Your task to perform on an android device: Search for razer kraken on ebay, select the first entry, add it to the cart, then select checkout. Image 0: 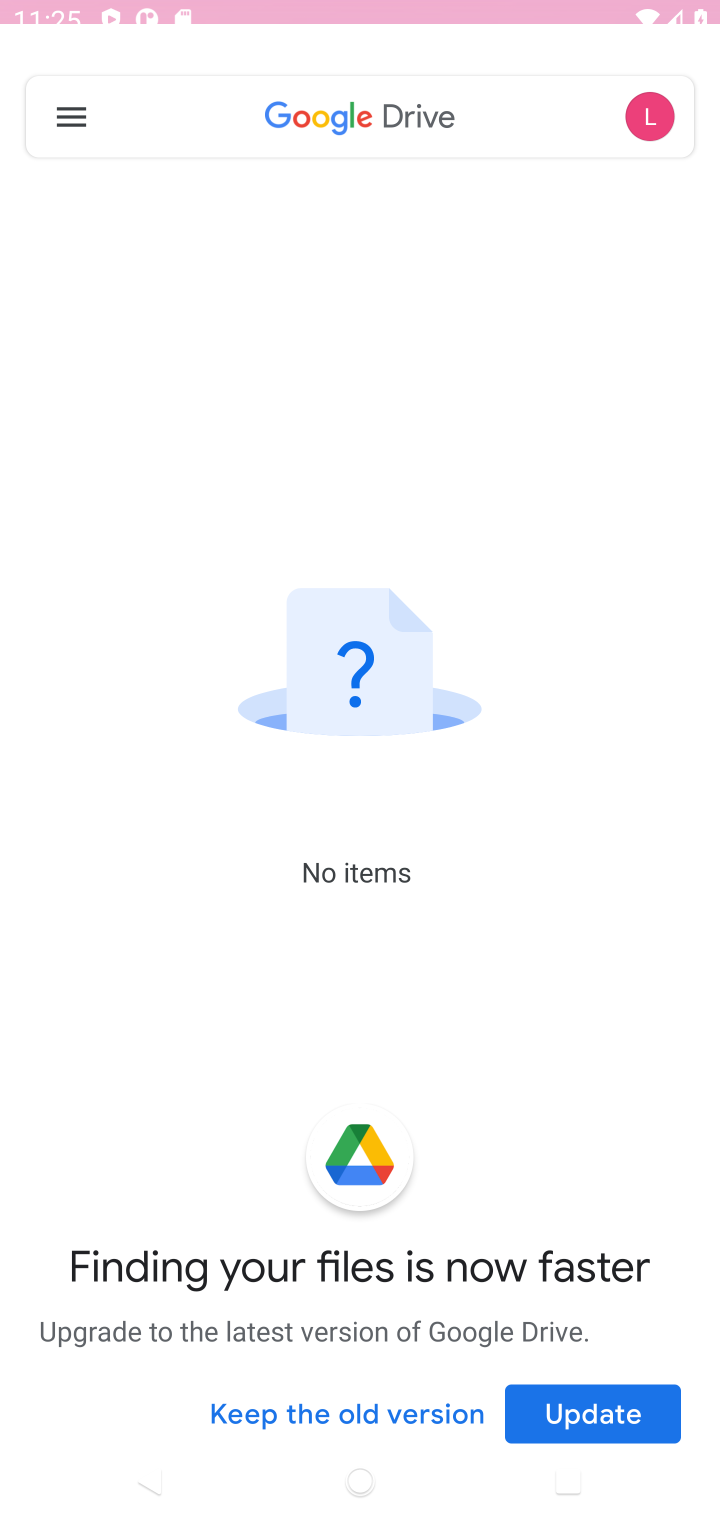
Step 0: press home button
Your task to perform on an android device: Search for razer kraken on ebay, select the first entry, add it to the cart, then select checkout. Image 1: 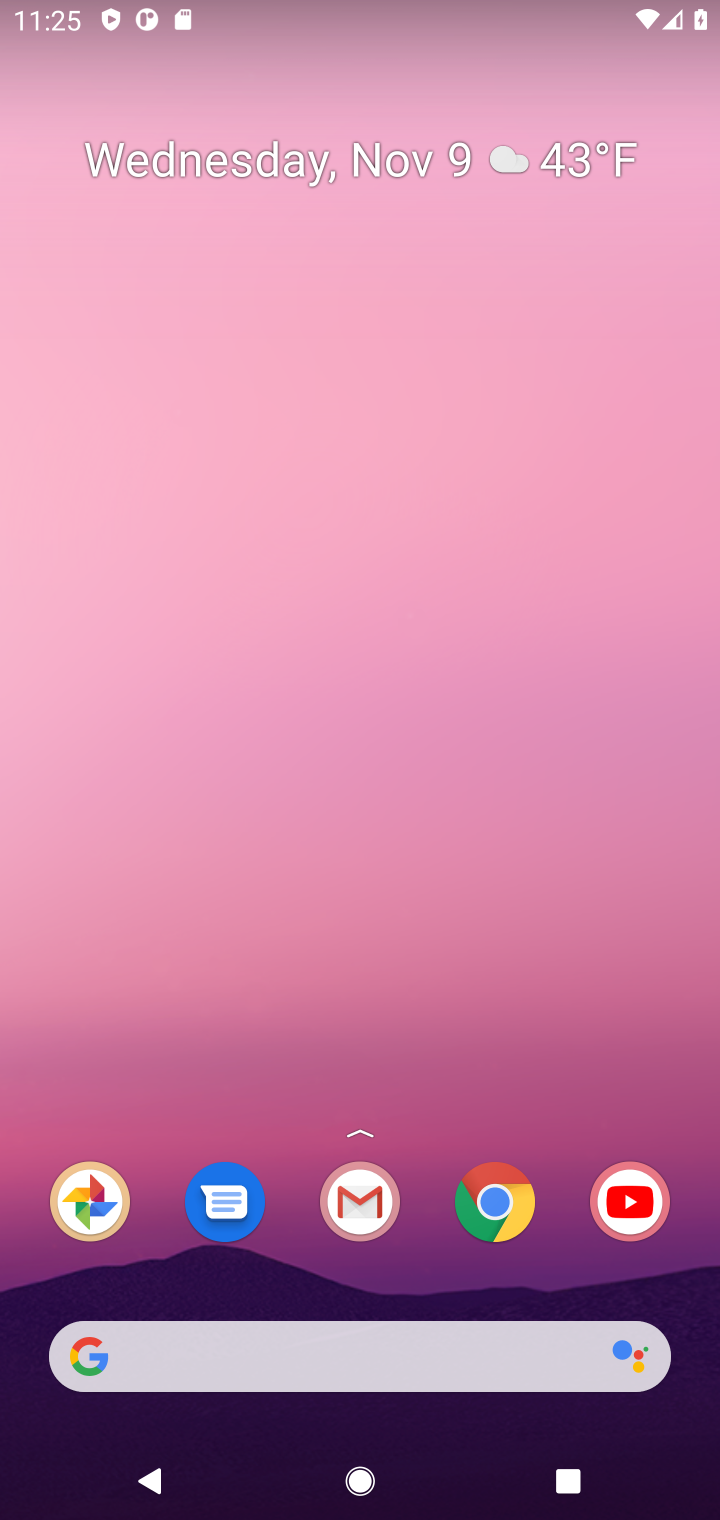
Step 1: click (486, 1195)
Your task to perform on an android device: Search for razer kraken on ebay, select the first entry, add it to the cart, then select checkout. Image 2: 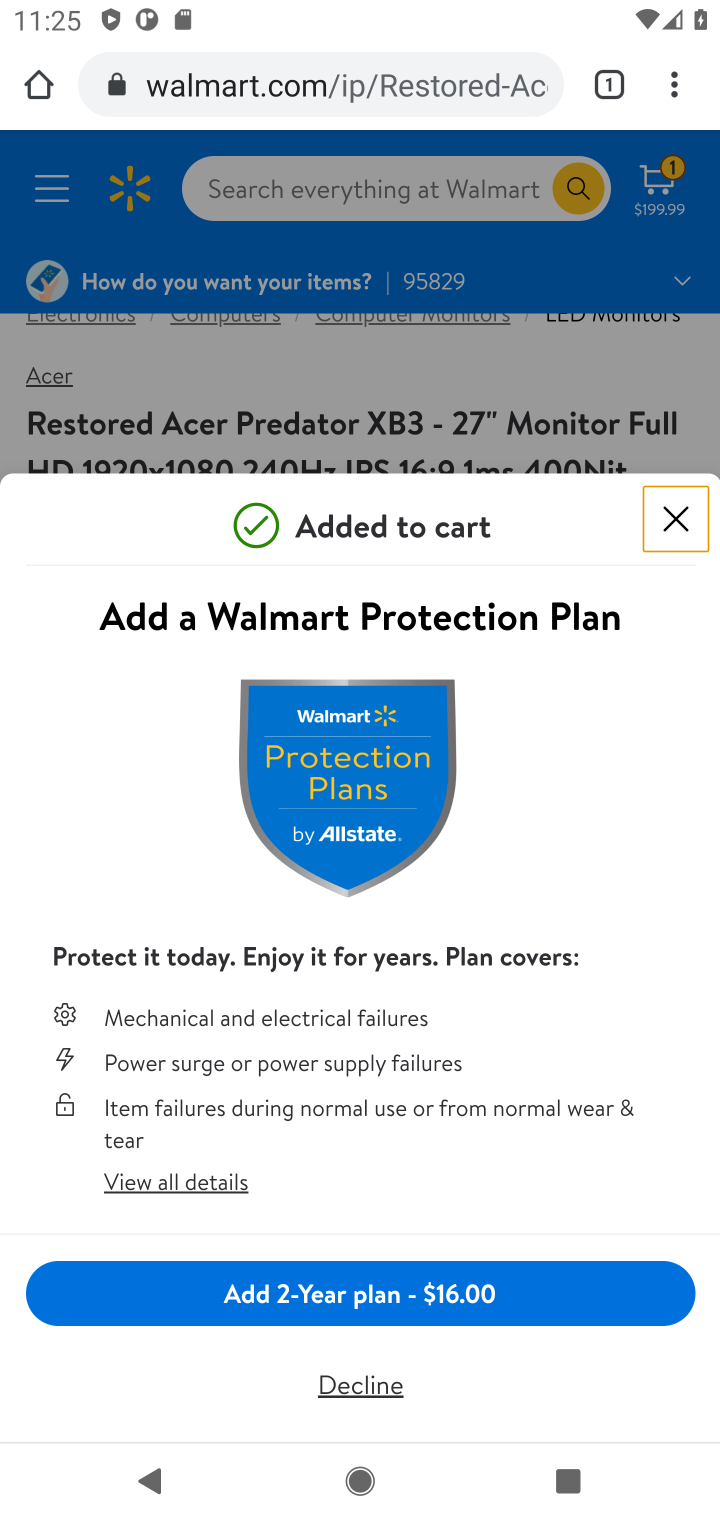
Step 2: click (402, 90)
Your task to perform on an android device: Search for razer kraken on ebay, select the first entry, add it to the cart, then select checkout. Image 3: 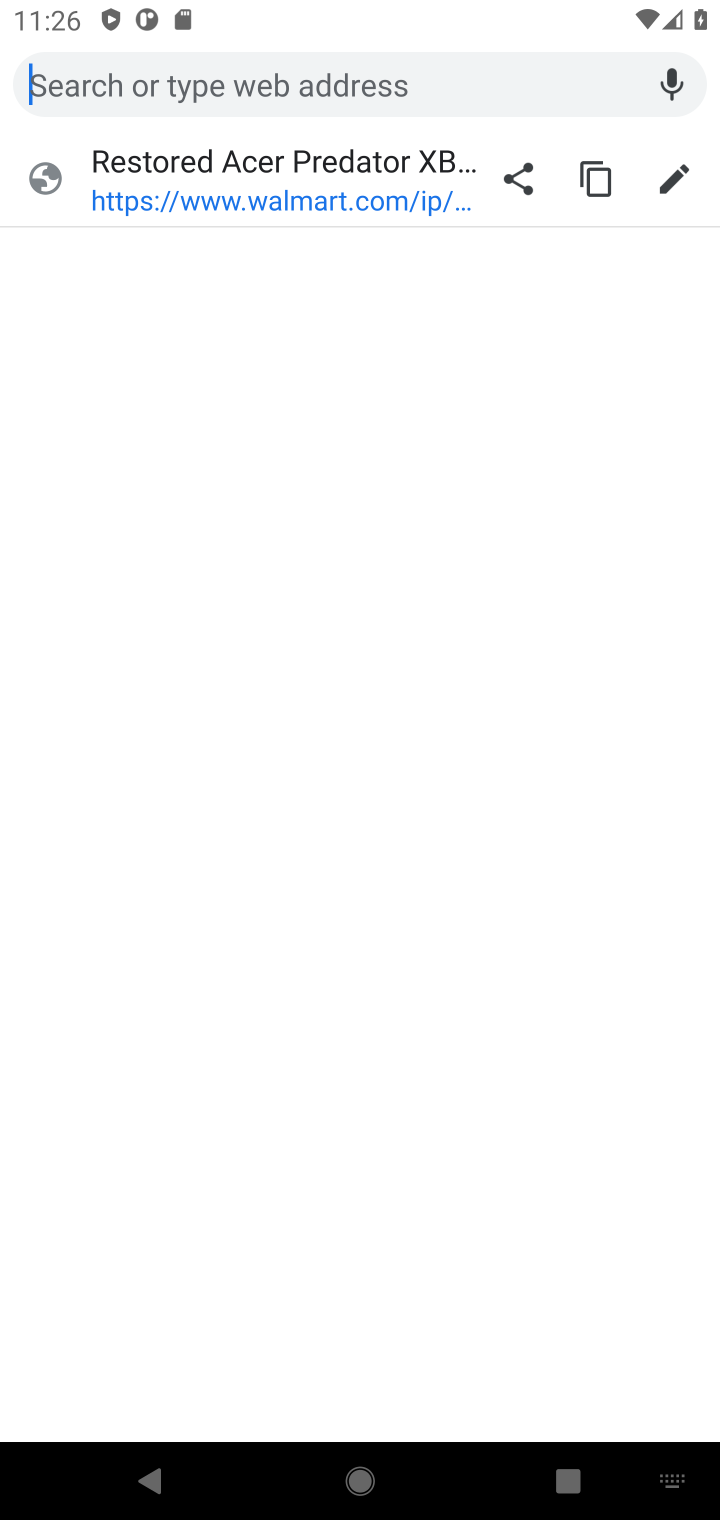
Step 3: type "ebay"
Your task to perform on an android device: Search for razer kraken on ebay, select the first entry, add it to the cart, then select checkout. Image 4: 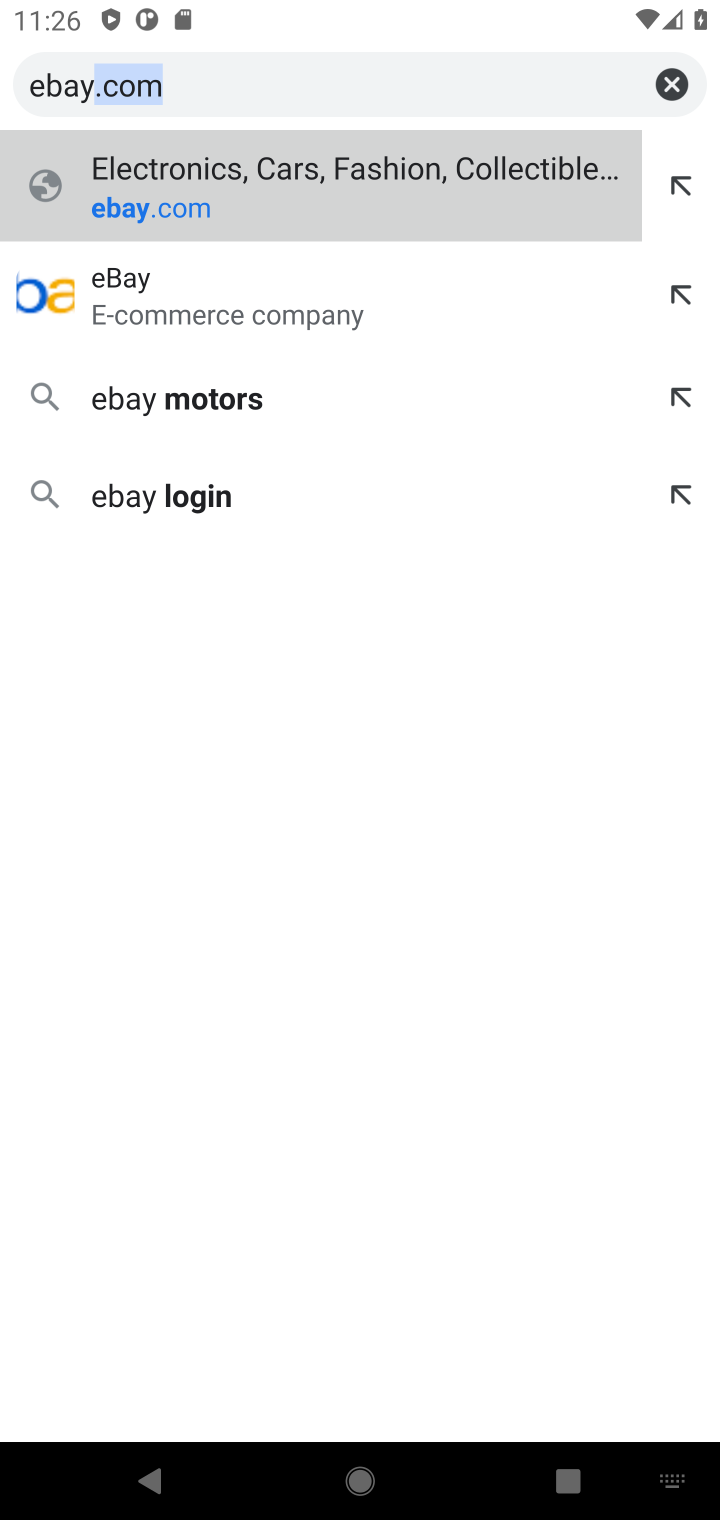
Step 4: click (428, 70)
Your task to perform on an android device: Search for razer kraken on ebay, select the first entry, add it to the cart, then select checkout. Image 5: 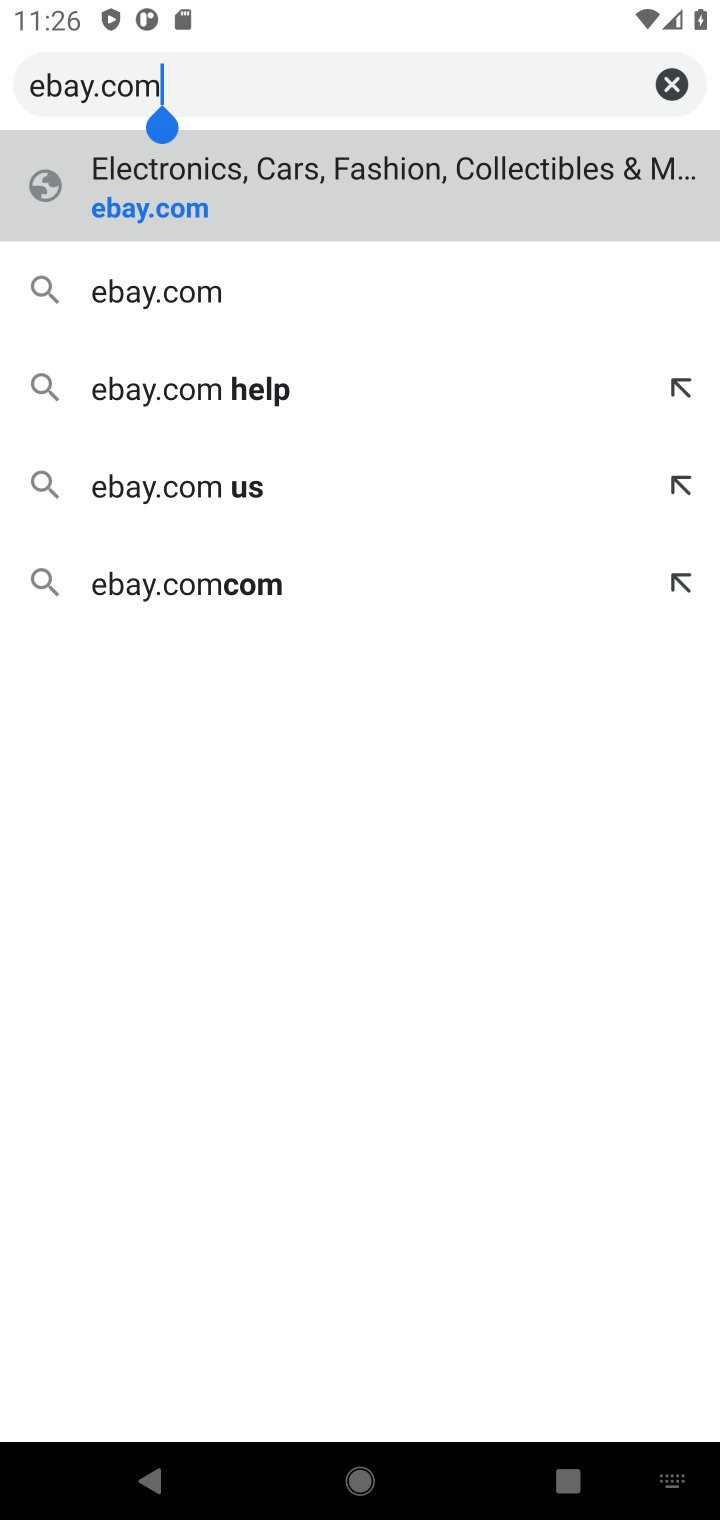
Step 5: click (186, 284)
Your task to perform on an android device: Search for razer kraken on ebay, select the first entry, add it to the cart, then select checkout. Image 6: 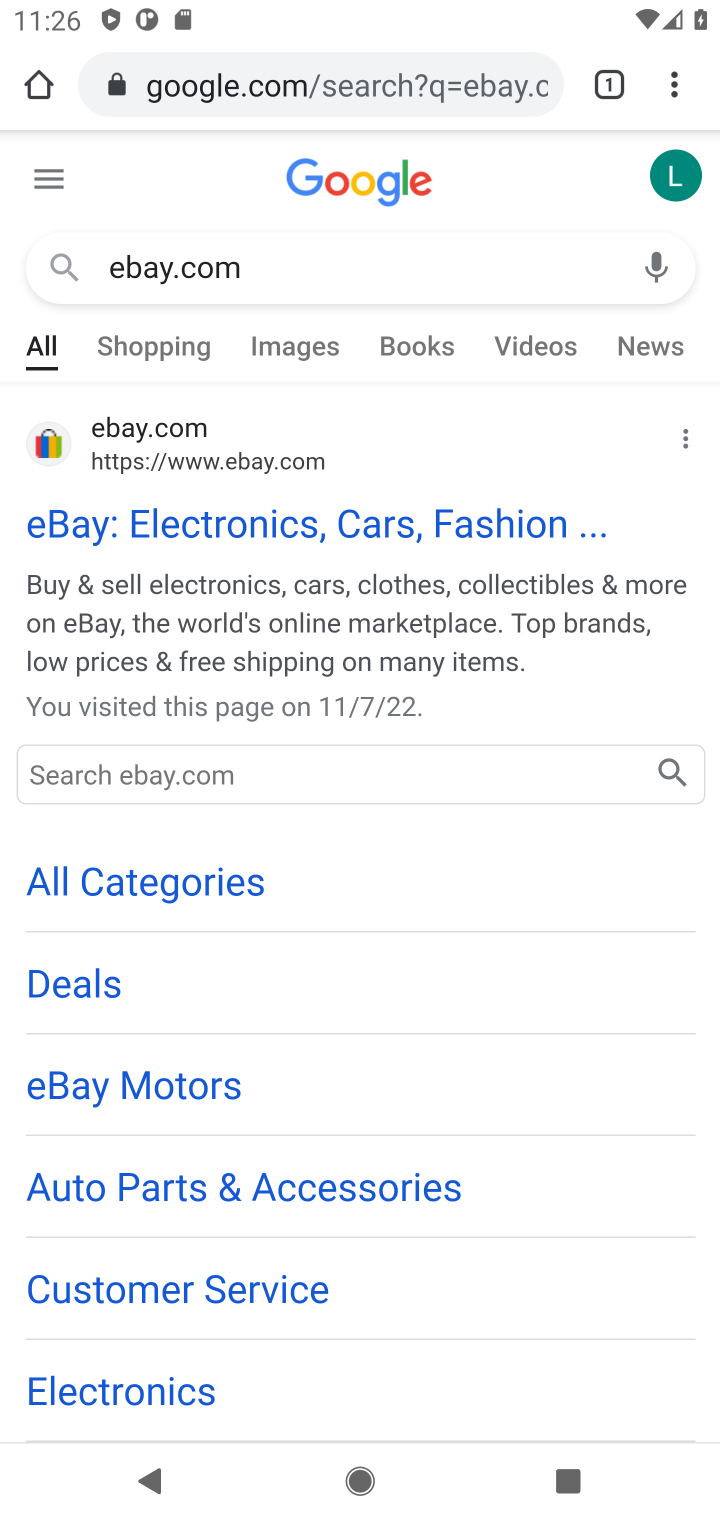
Step 6: click (181, 421)
Your task to perform on an android device: Search for razer kraken on ebay, select the first entry, add it to the cart, then select checkout. Image 7: 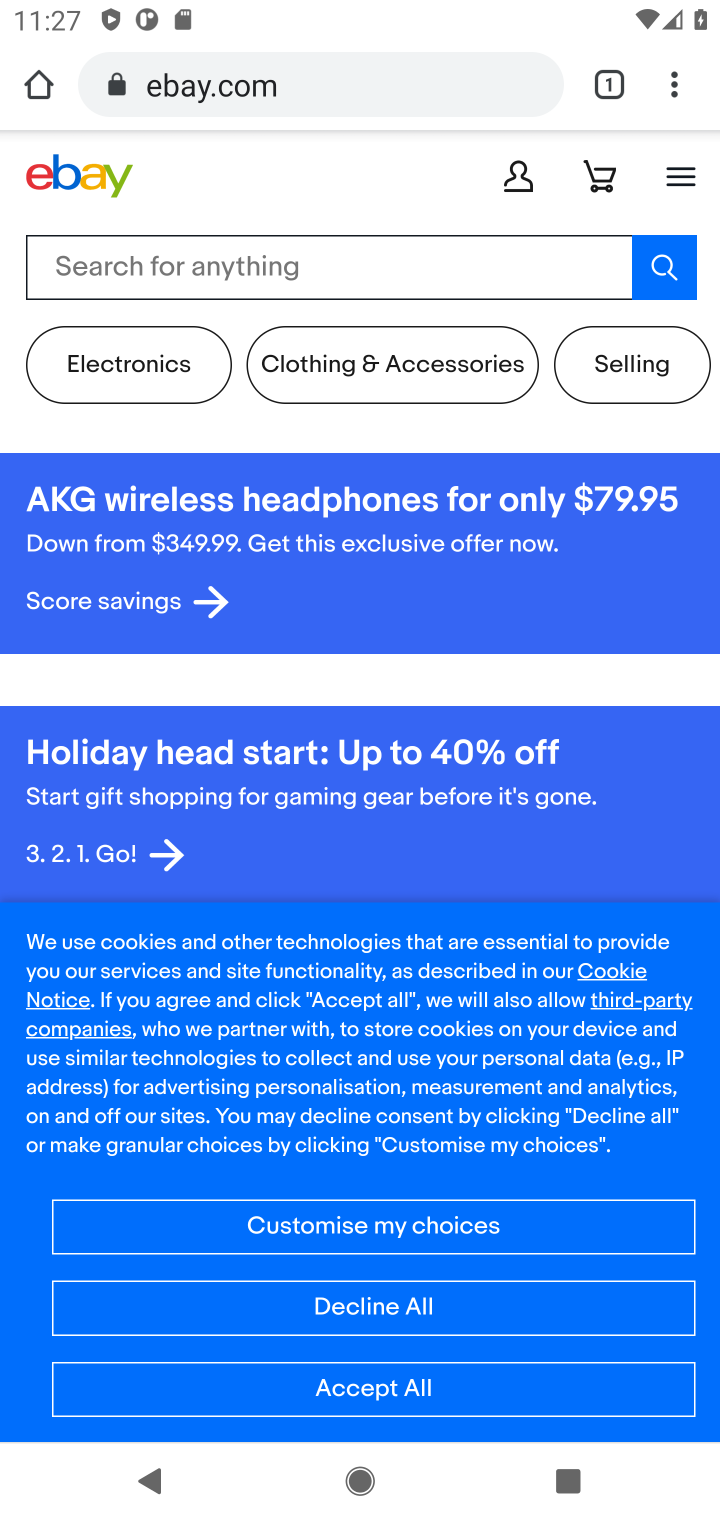
Step 7: click (356, 258)
Your task to perform on an android device: Search for razer kraken on ebay, select the first entry, add it to the cart, then select checkout. Image 8: 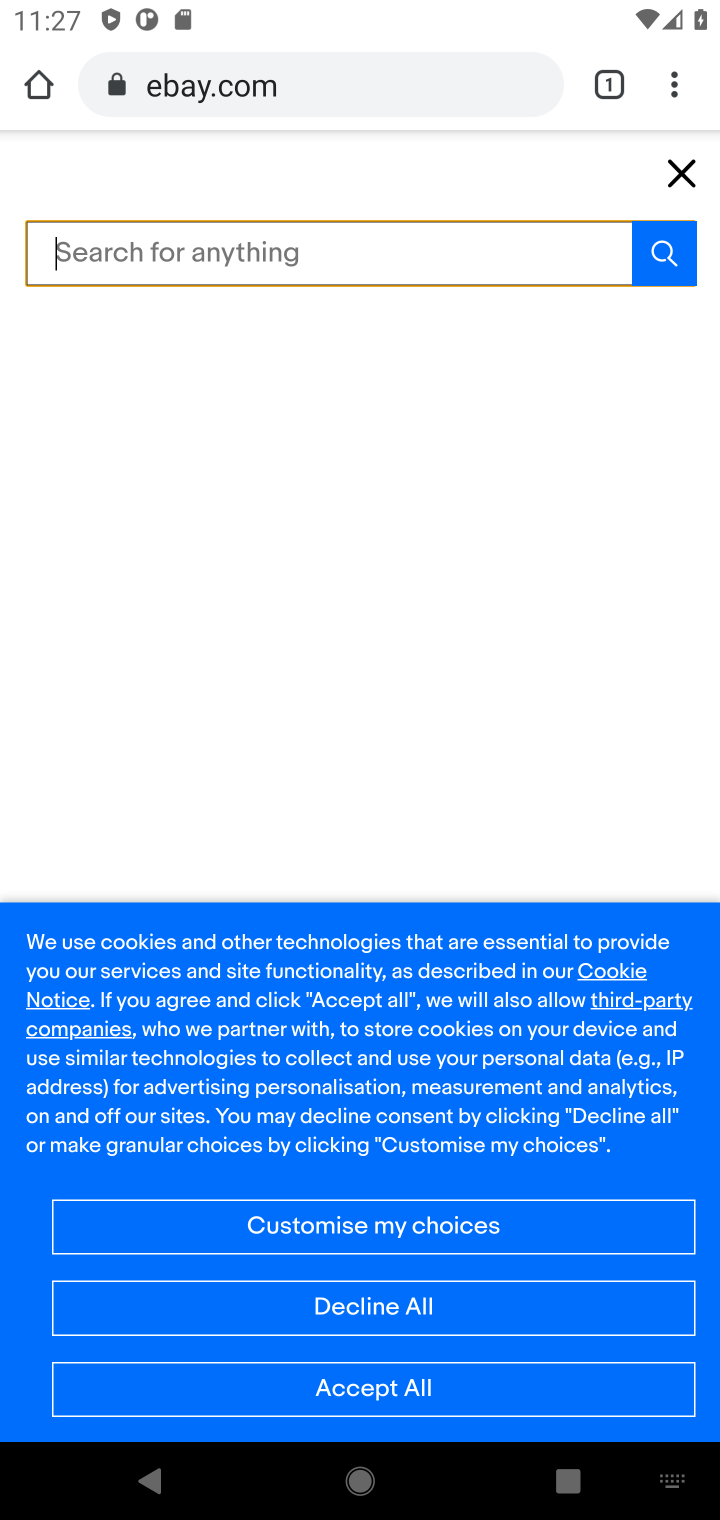
Step 8: type " razer kraken"
Your task to perform on an android device: Search for razer kraken on ebay, select the first entry, add it to the cart, then select checkout. Image 9: 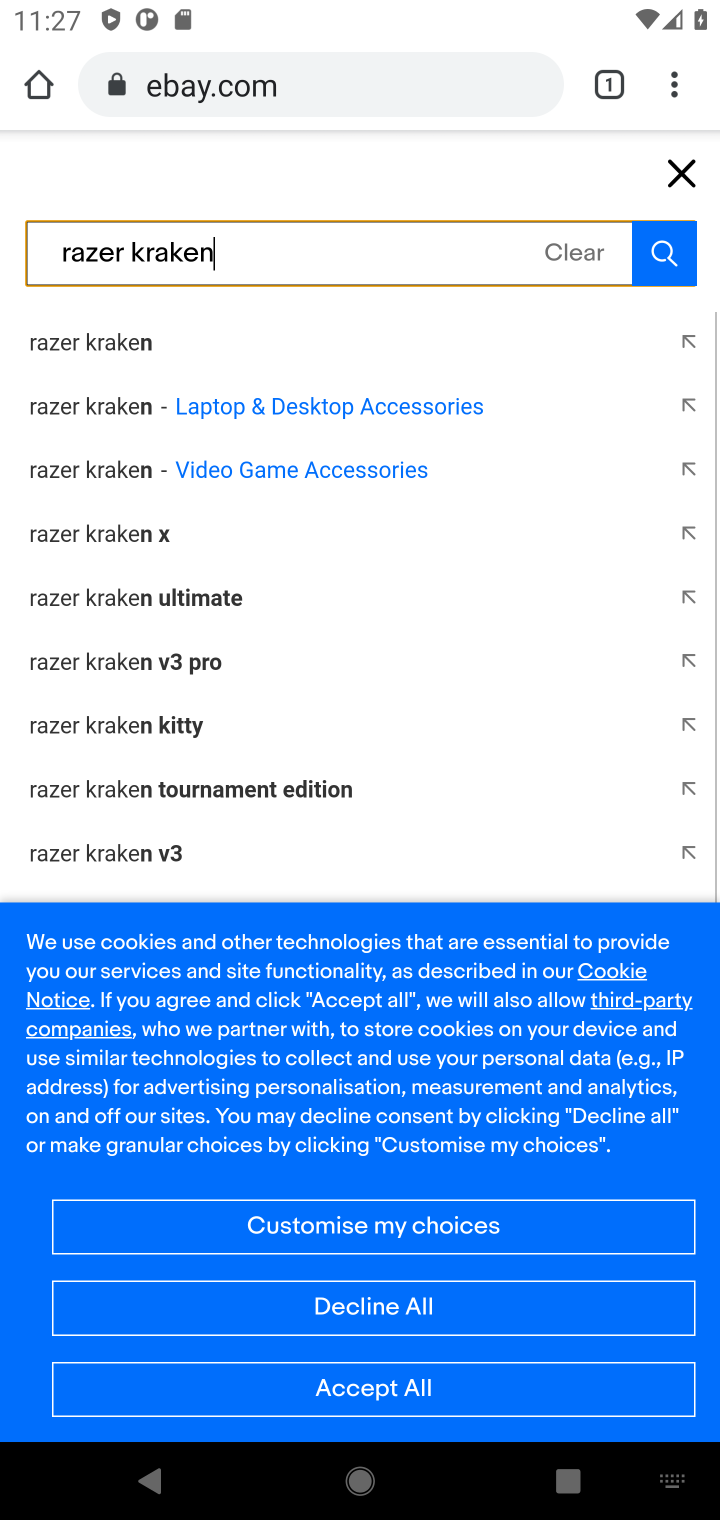
Step 9: press enter
Your task to perform on an android device: Search for razer kraken on ebay, select the first entry, add it to the cart, then select checkout. Image 10: 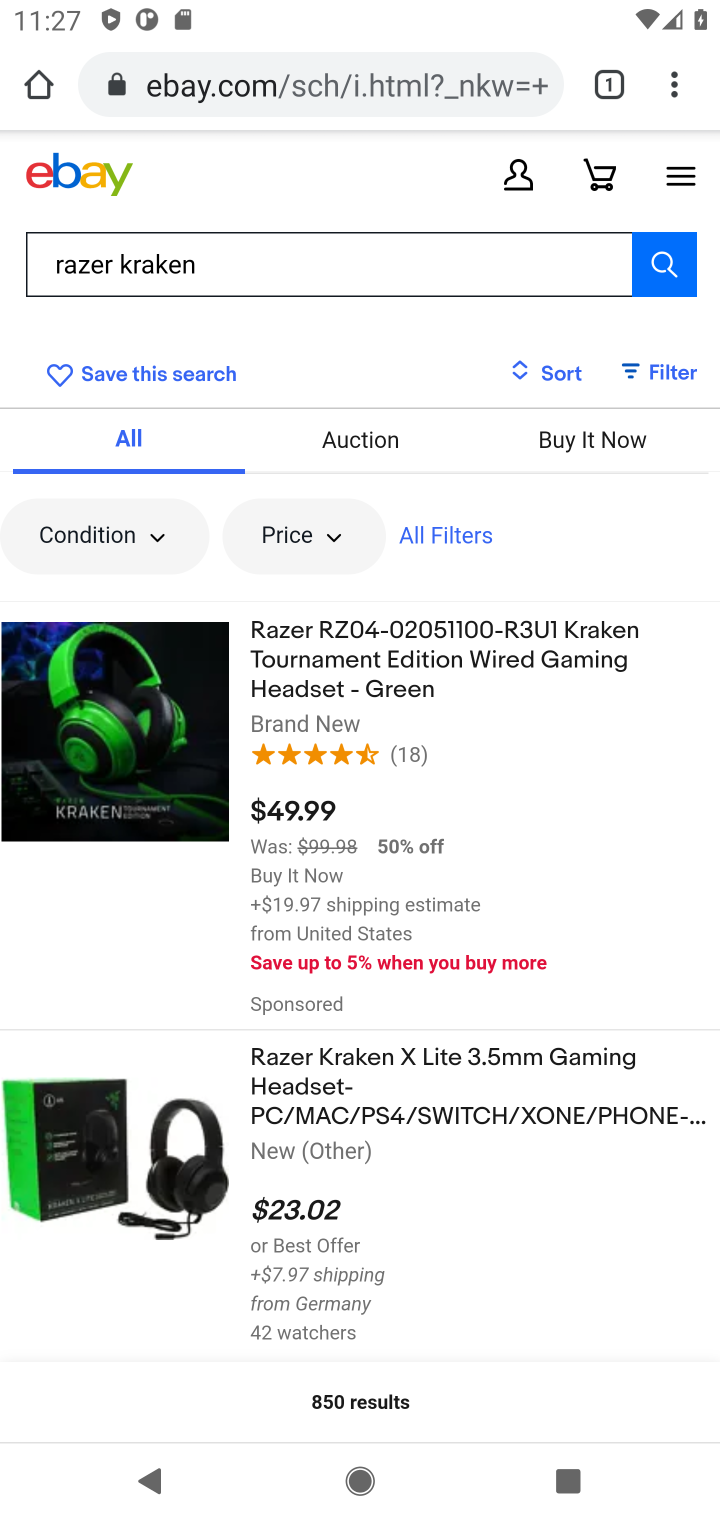
Step 10: drag from (609, 859) to (587, 522)
Your task to perform on an android device: Search for razer kraken on ebay, select the first entry, add it to the cart, then select checkout. Image 11: 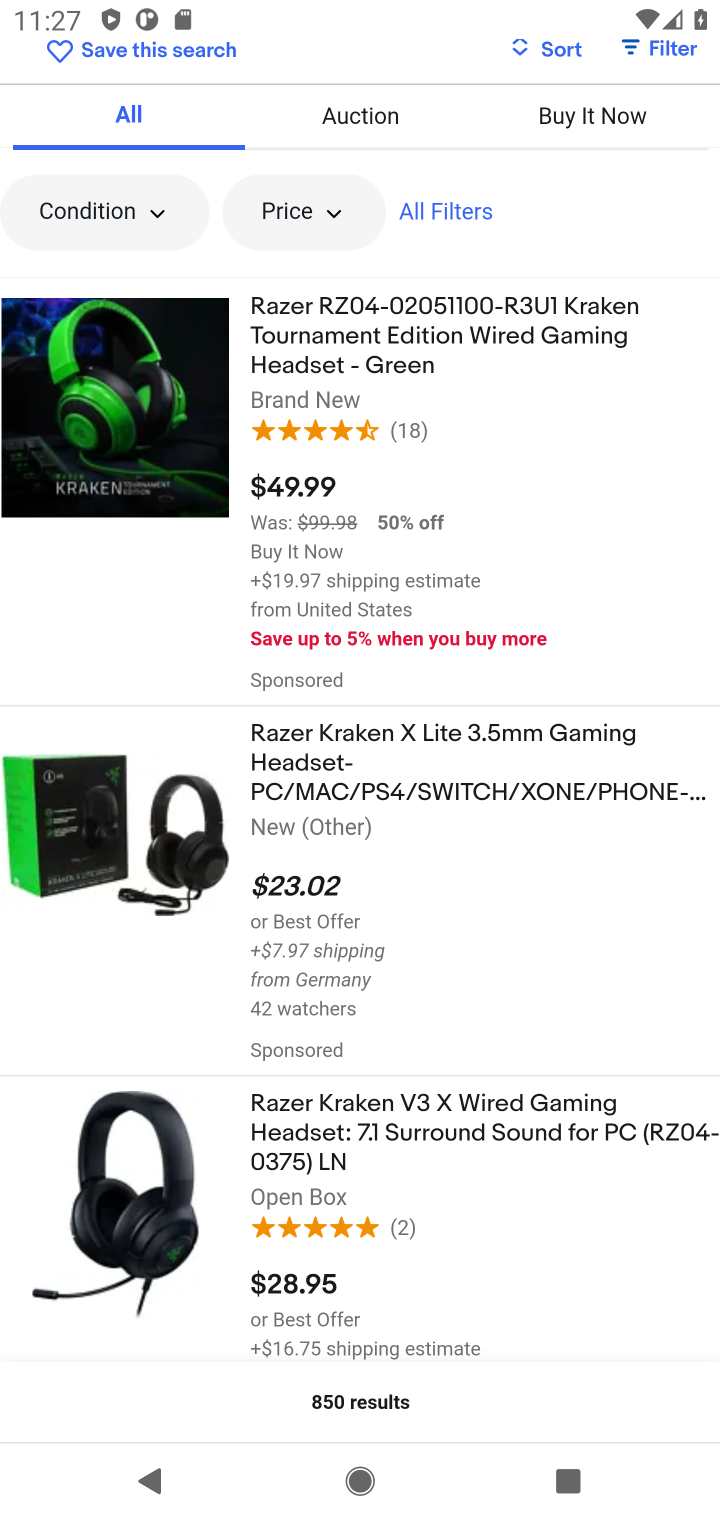
Step 11: click (125, 838)
Your task to perform on an android device: Search for razer kraken on ebay, select the first entry, add it to the cart, then select checkout. Image 12: 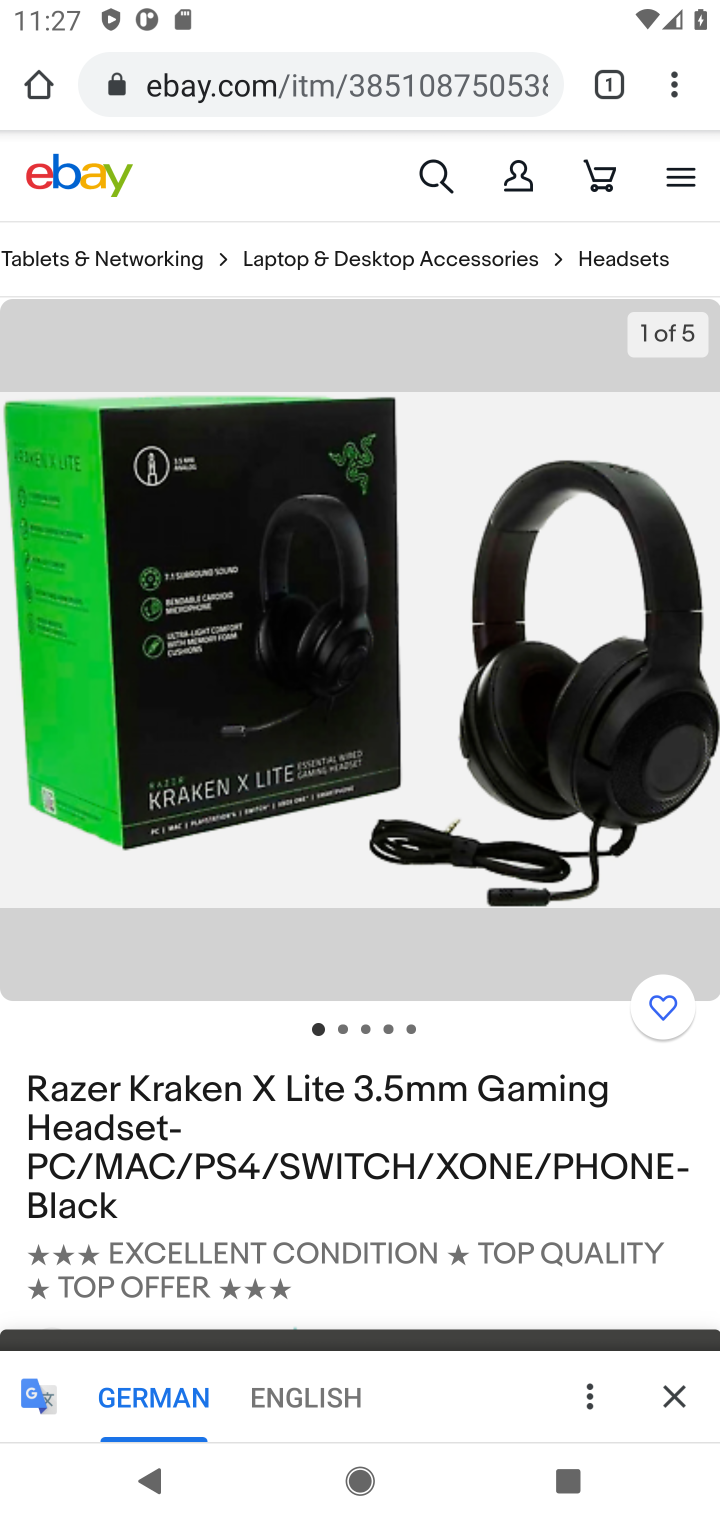
Step 12: drag from (495, 1155) to (496, 403)
Your task to perform on an android device: Search for razer kraken on ebay, select the first entry, add it to the cart, then select checkout. Image 13: 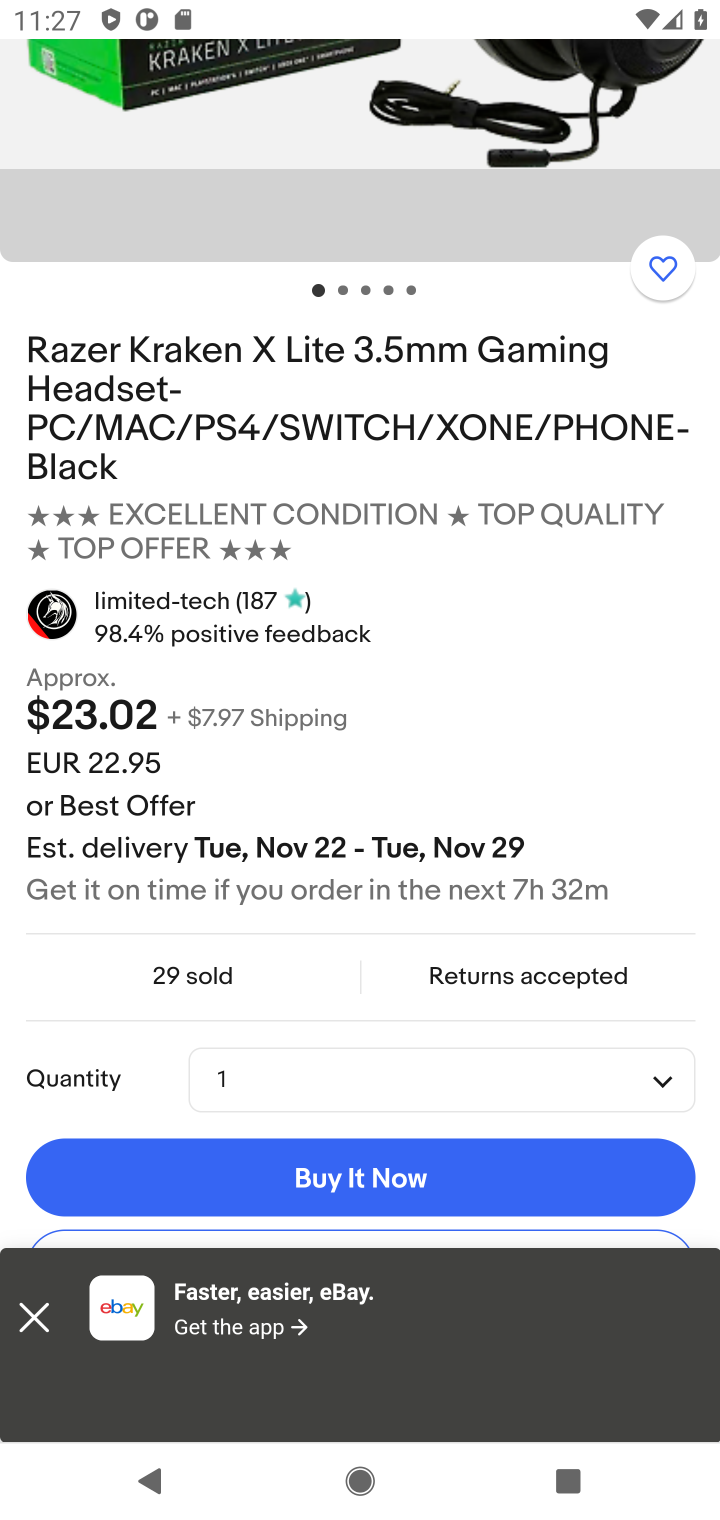
Step 13: drag from (507, 1021) to (543, 505)
Your task to perform on an android device: Search for razer kraken on ebay, select the first entry, add it to the cart, then select checkout. Image 14: 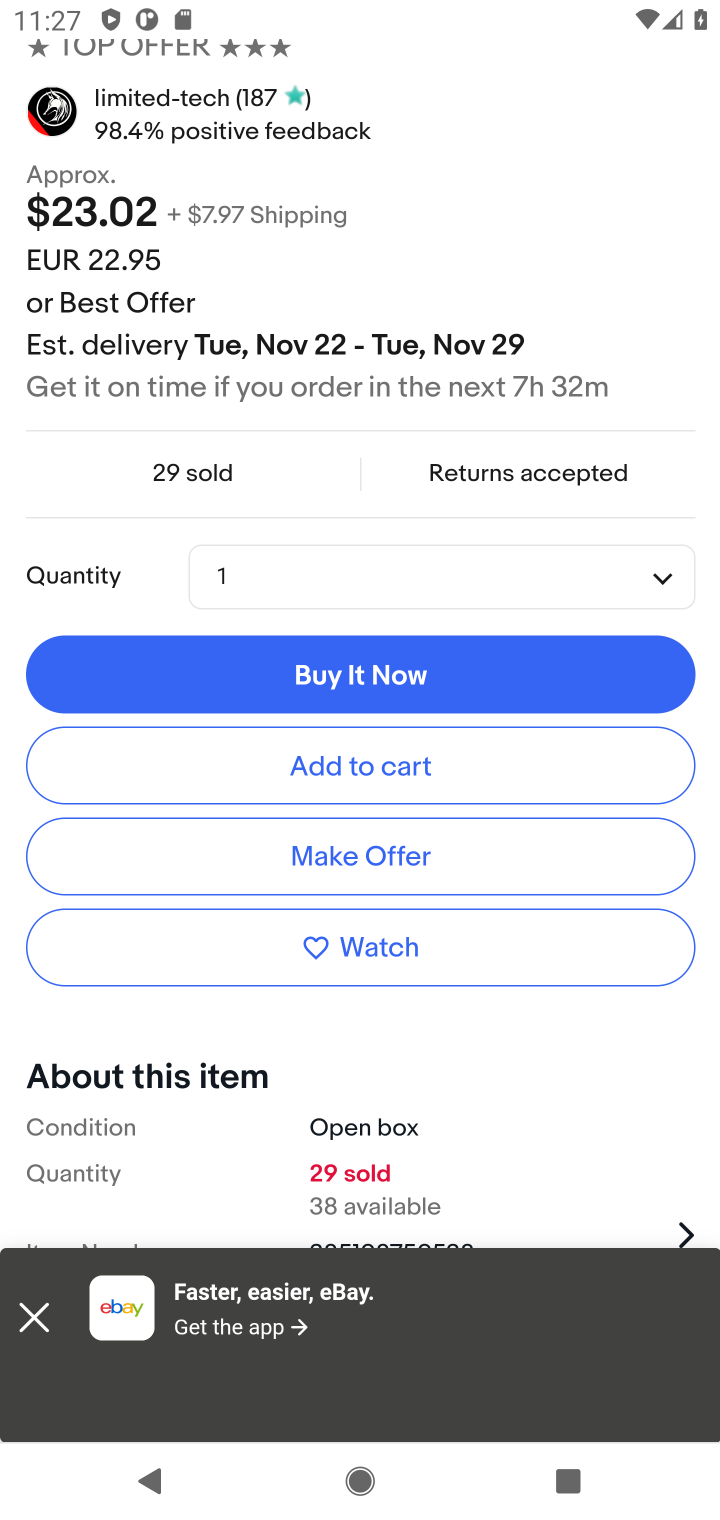
Step 14: click (400, 782)
Your task to perform on an android device: Search for razer kraken on ebay, select the first entry, add it to the cart, then select checkout. Image 15: 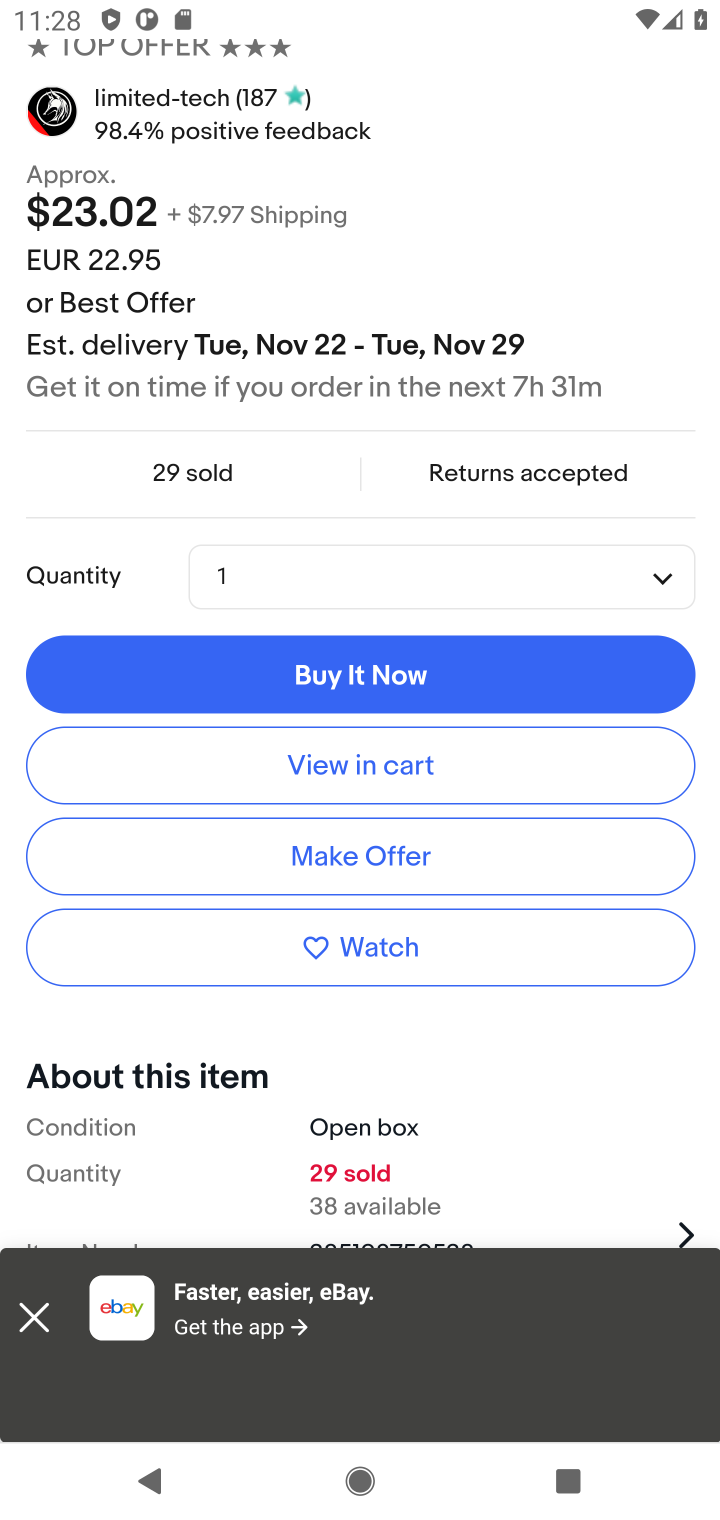
Step 15: click (400, 782)
Your task to perform on an android device: Search for razer kraken on ebay, select the first entry, add it to the cart, then select checkout. Image 16: 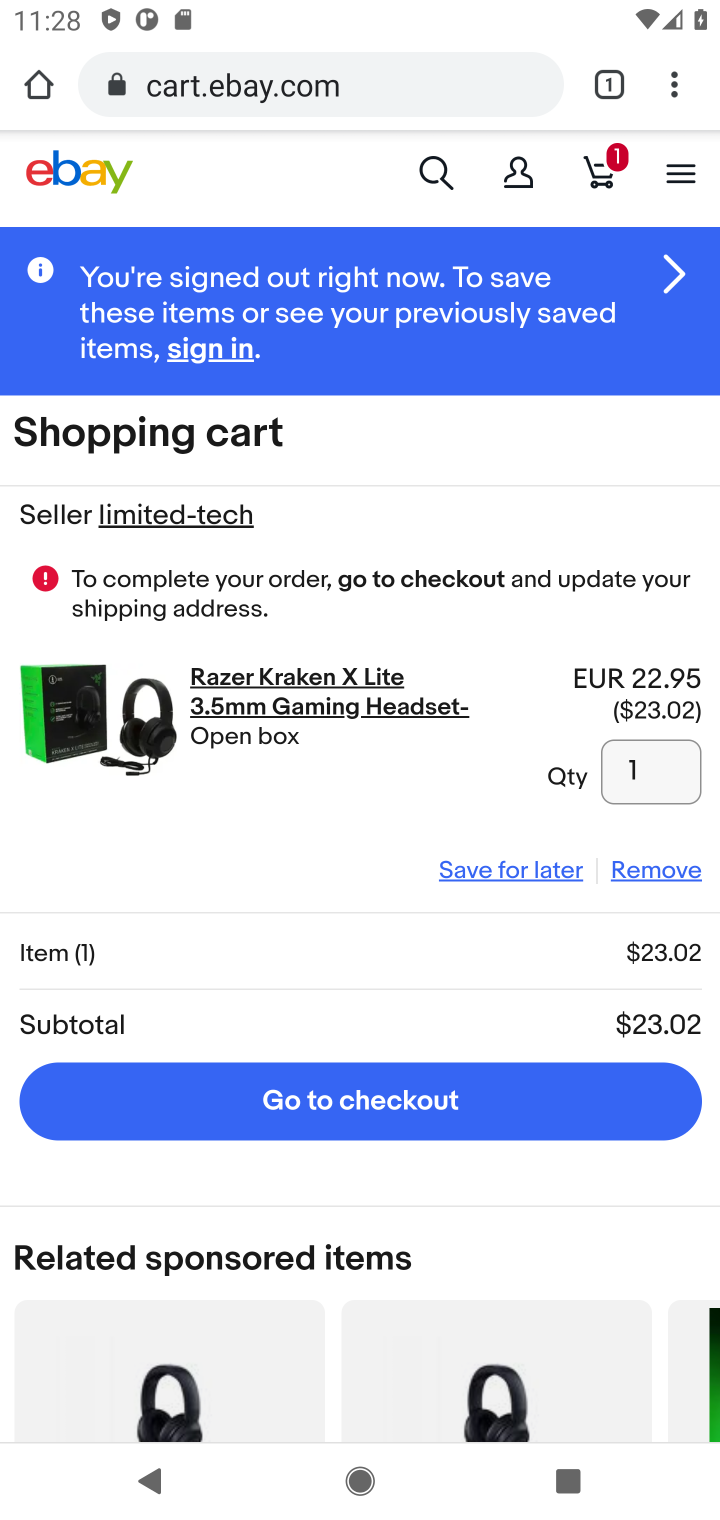
Step 16: click (407, 1048)
Your task to perform on an android device: Search for razer kraken on ebay, select the first entry, add it to the cart, then select checkout. Image 17: 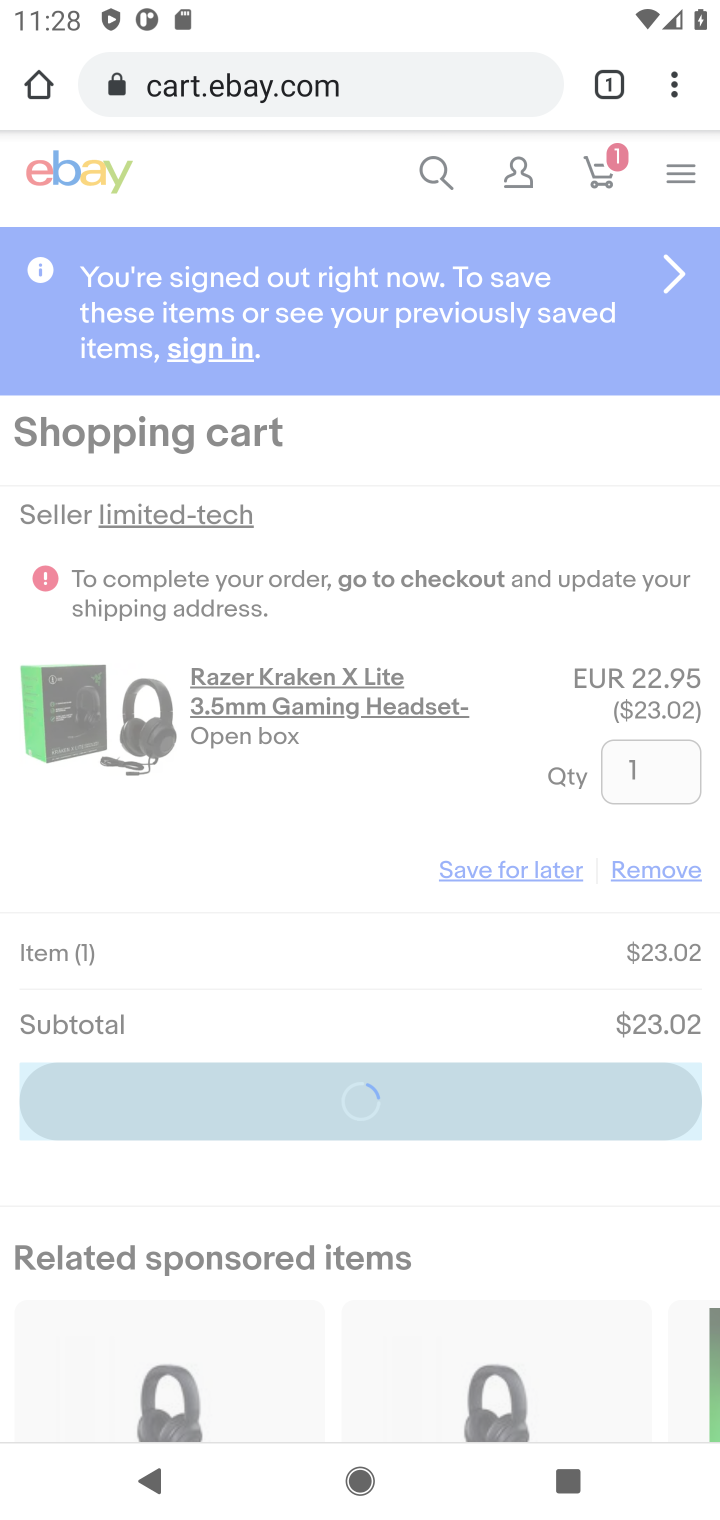
Step 17: click (382, 1095)
Your task to perform on an android device: Search for razer kraken on ebay, select the first entry, add it to the cart, then select checkout. Image 18: 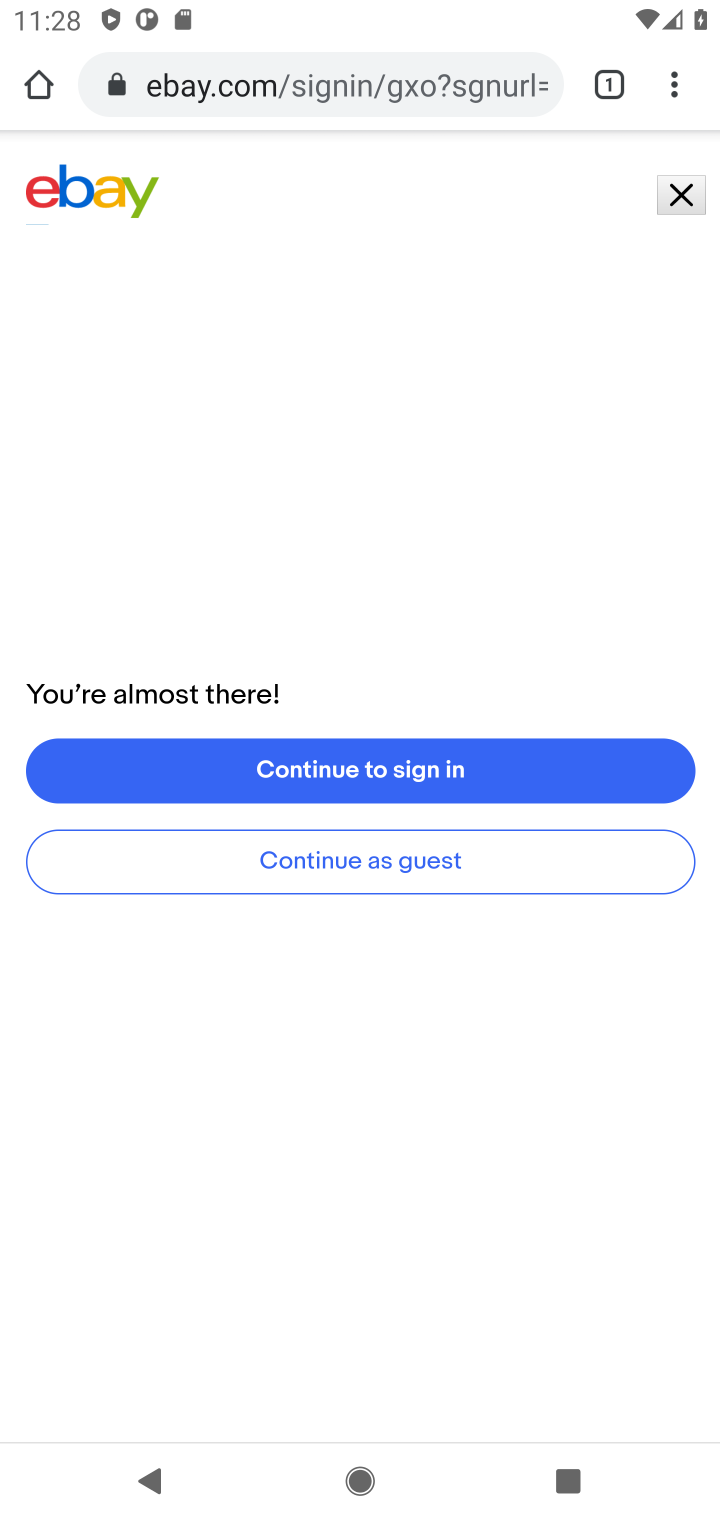
Step 18: task complete